Your task to perform on an android device: turn on showing notifications on the lock screen Image 0: 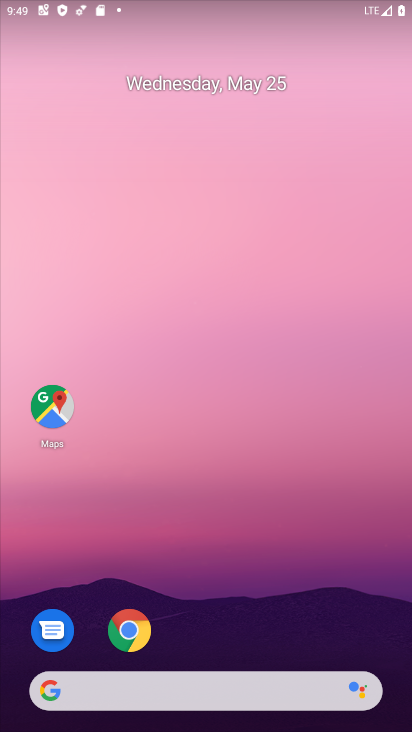
Step 0: drag from (219, 646) to (236, 140)
Your task to perform on an android device: turn on showing notifications on the lock screen Image 1: 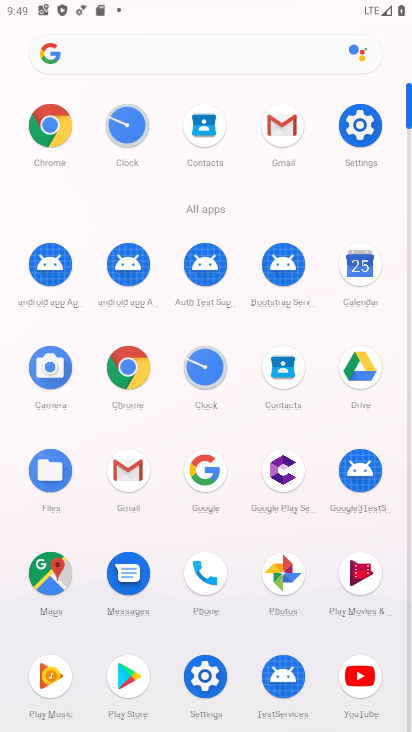
Step 1: click (355, 129)
Your task to perform on an android device: turn on showing notifications on the lock screen Image 2: 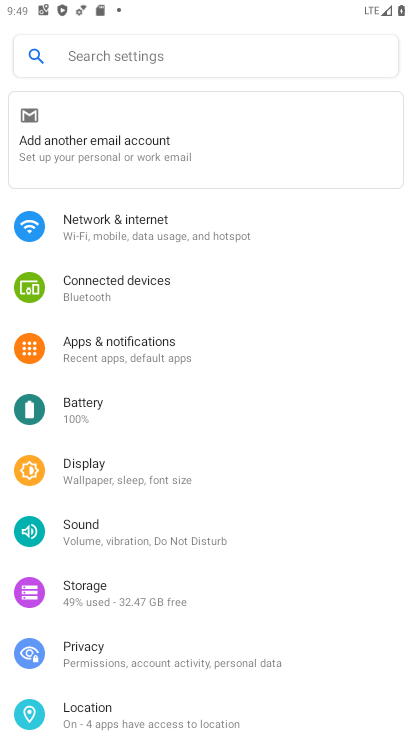
Step 2: click (174, 348)
Your task to perform on an android device: turn on showing notifications on the lock screen Image 3: 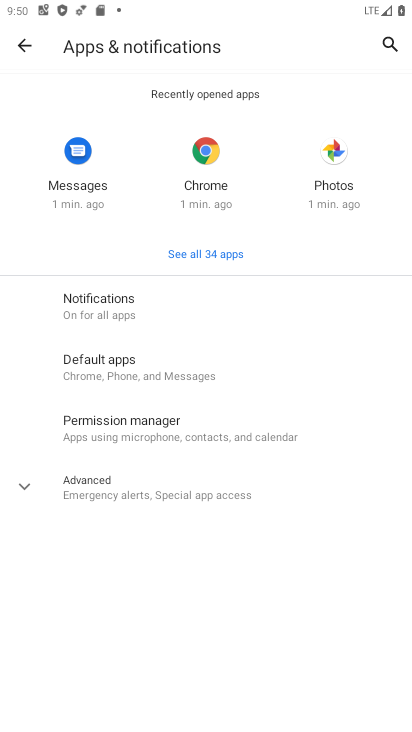
Step 3: click (166, 305)
Your task to perform on an android device: turn on showing notifications on the lock screen Image 4: 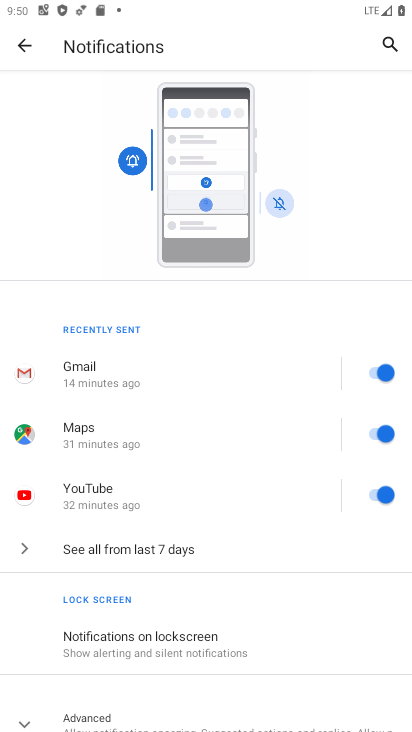
Step 4: click (161, 638)
Your task to perform on an android device: turn on showing notifications on the lock screen Image 5: 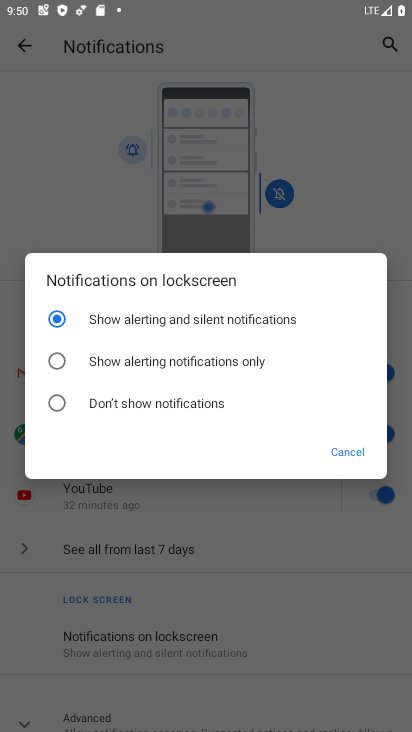
Step 5: click (66, 324)
Your task to perform on an android device: turn on showing notifications on the lock screen Image 6: 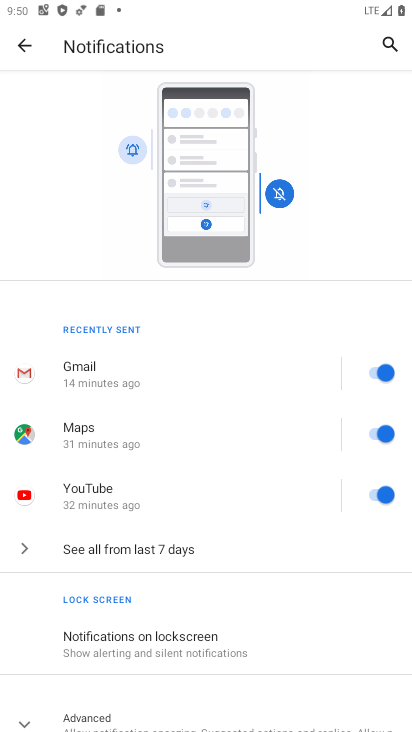
Step 6: task complete